Your task to perform on an android device: empty trash in google photos Image 0: 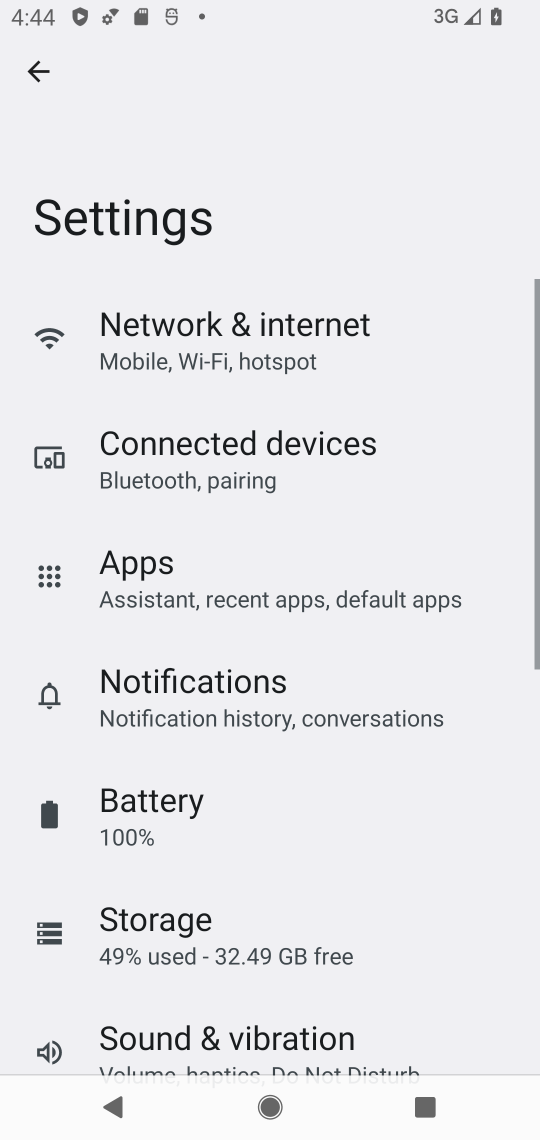
Step 0: press home button
Your task to perform on an android device: empty trash in google photos Image 1: 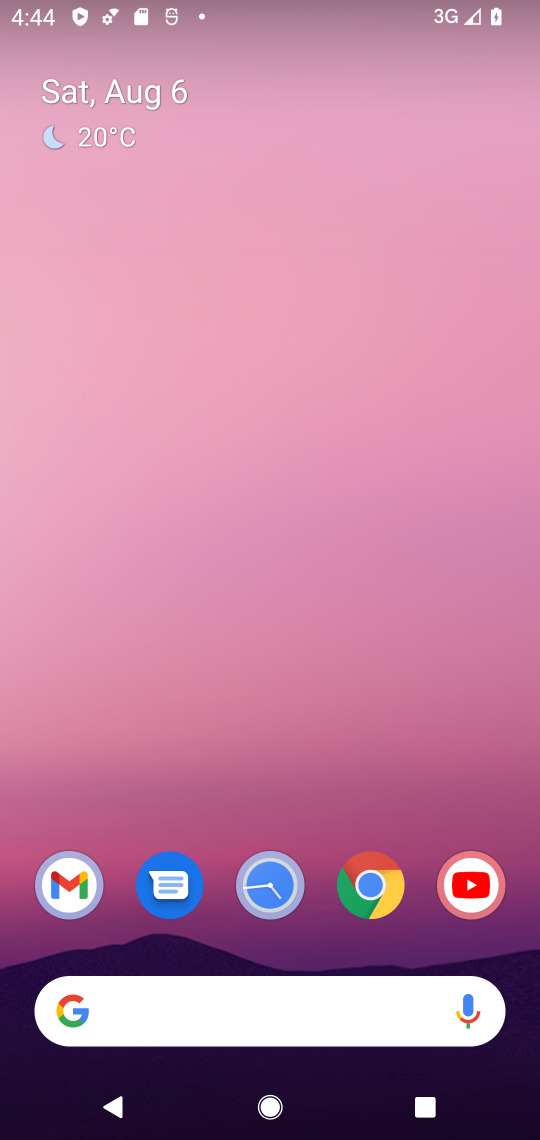
Step 1: drag from (460, 959) to (268, 64)
Your task to perform on an android device: empty trash in google photos Image 2: 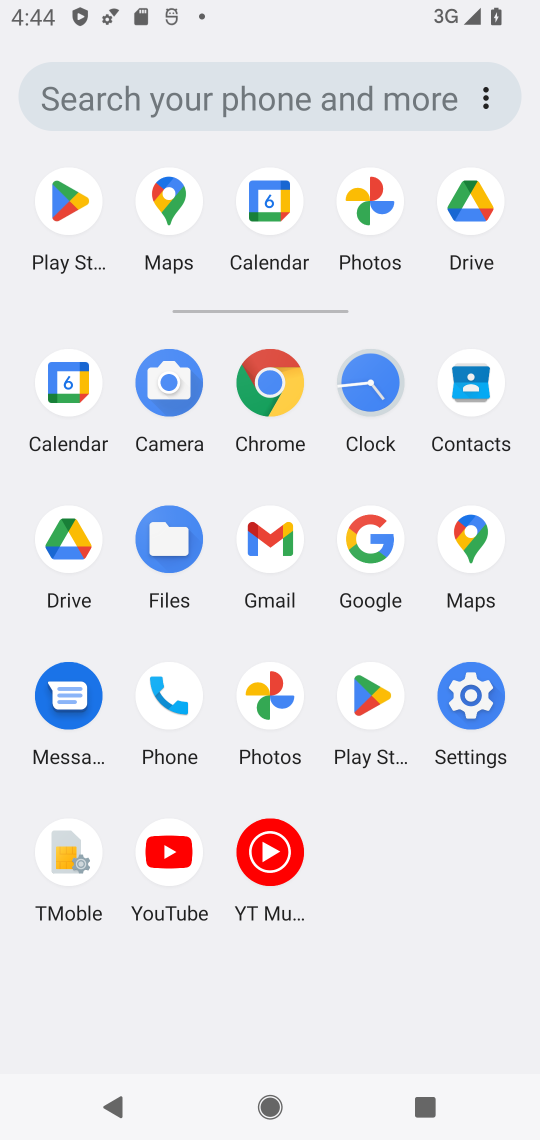
Step 2: click (293, 698)
Your task to perform on an android device: empty trash in google photos Image 3: 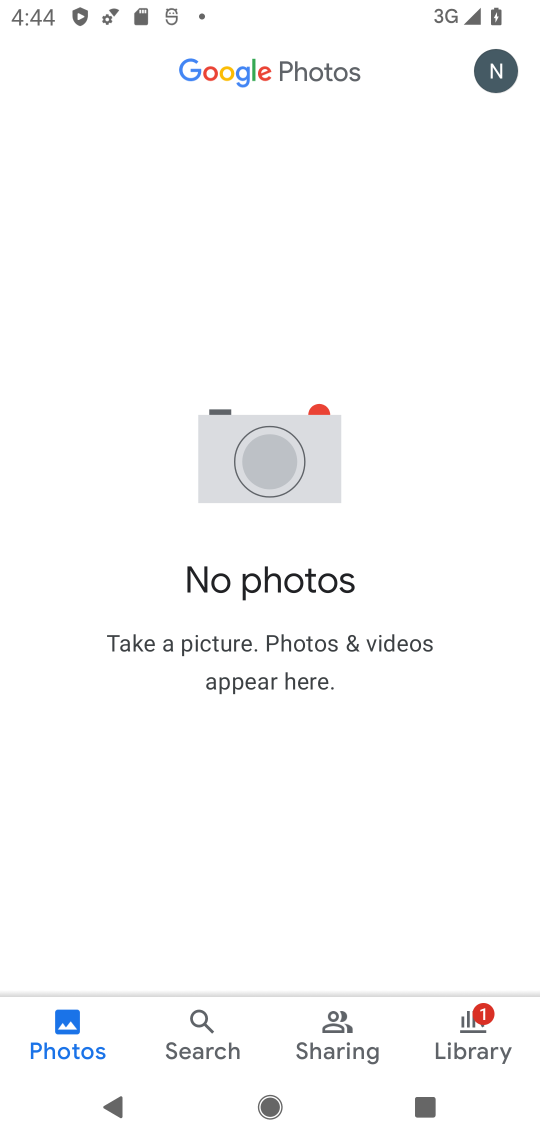
Step 3: click (487, 64)
Your task to perform on an android device: empty trash in google photos Image 4: 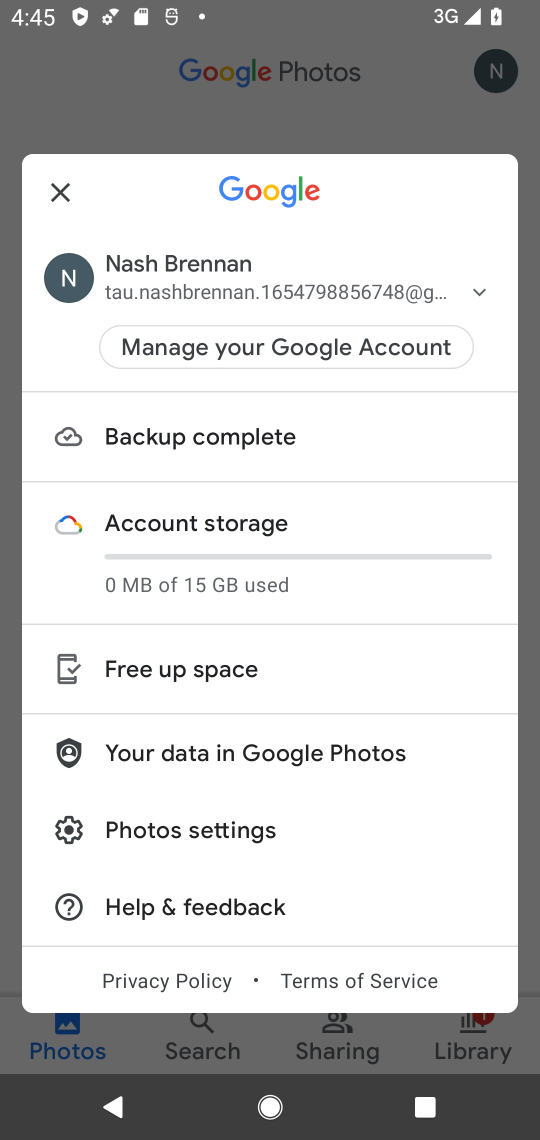
Step 4: click (153, 839)
Your task to perform on an android device: empty trash in google photos Image 5: 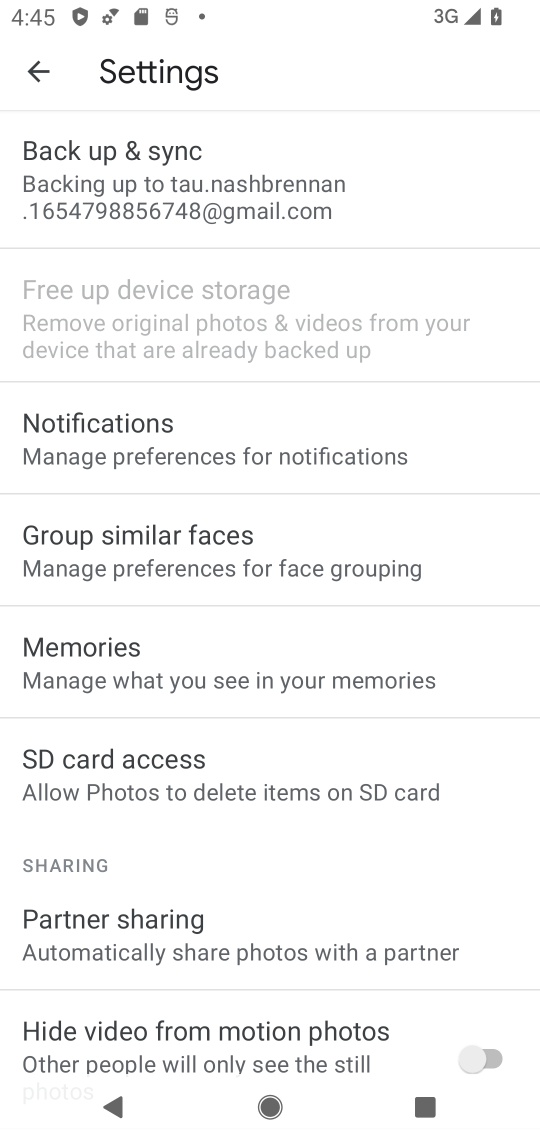
Step 5: task complete